Your task to perform on an android device: manage bookmarks in the chrome app Image 0: 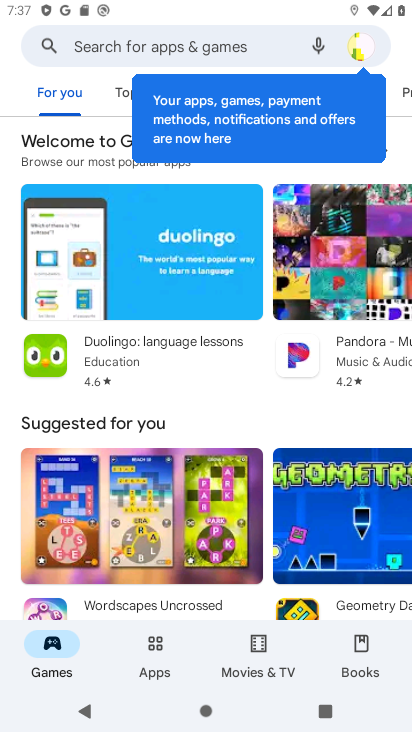
Step 0: press home button
Your task to perform on an android device: manage bookmarks in the chrome app Image 1: 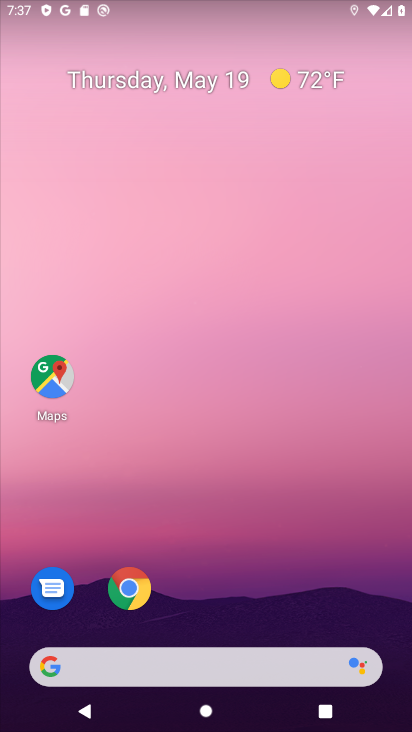
Step 1: click (124, 594)
Your task to perform on an android device: manage bookmarks in the chrome app Image 2: 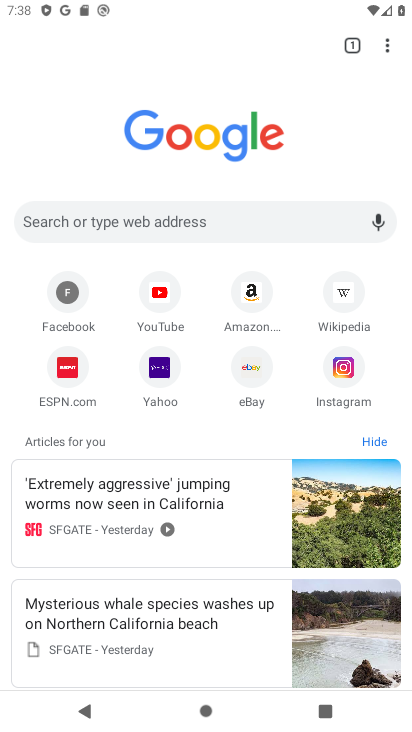
Step 2: click (391, 50)
Your task to perform on an android device: manage bookmarks in the chrome app Image 3: 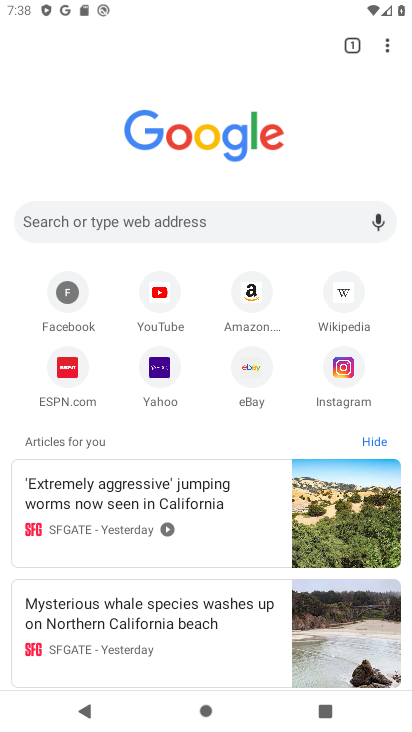
Step 3: click (385, 49)
Your task to perform on an android device: manage bookmarks in the chrome app Image 4: 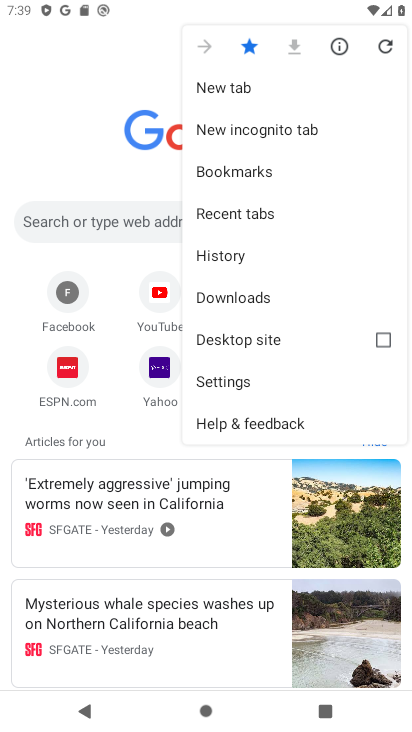
Step 4: click (235, 162)
Your task to perform on an android device: manage bookmarks in the chrome app Image 5: 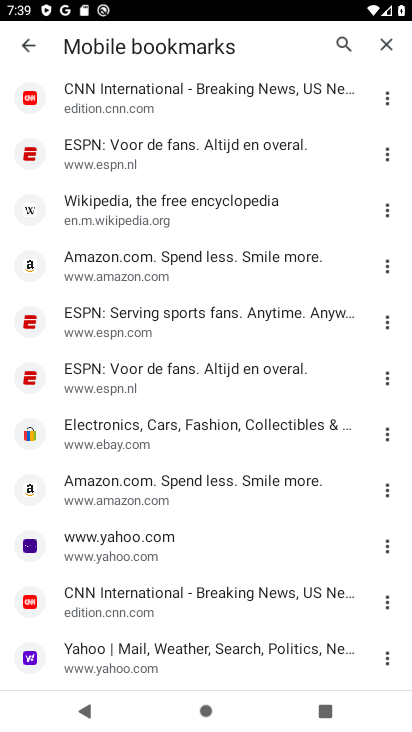
Step 5: click (149, 362)
Your task to perform on an android device: manage bookmarks in the chrome app Image 6: 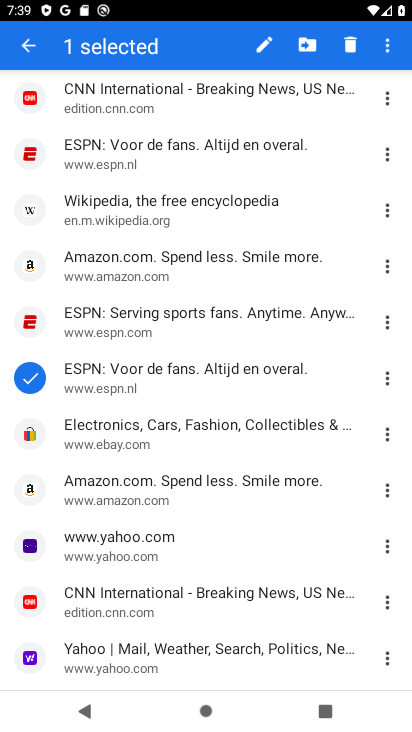
Step 6: click (41, 322)
Your task to perform on an android device: manage bookmarks in the chrome app Image 7: 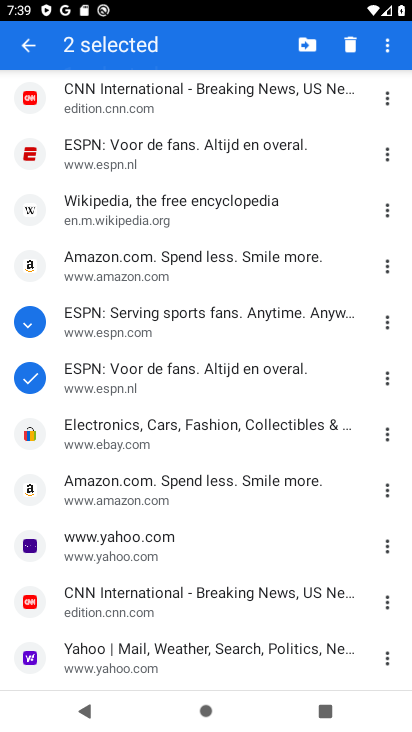
Step 7: click (43, 269)
Your task to perform on an android device: manage bookmarks in the chrome app Image 8: 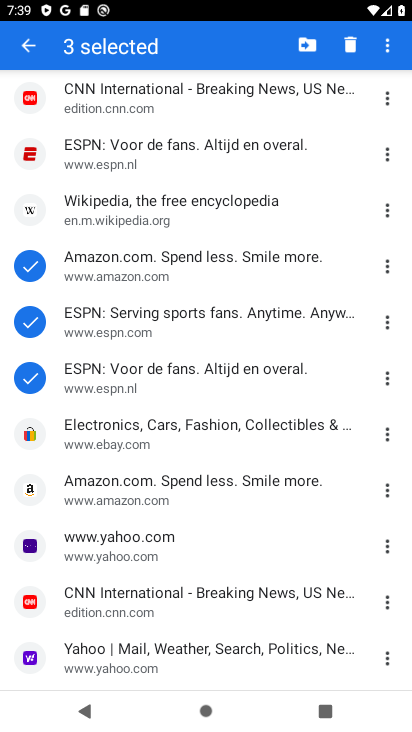
Step 8: click (357, 43)
Your task to perform on an android device: manage bookmarks in the chrome app Image 9: 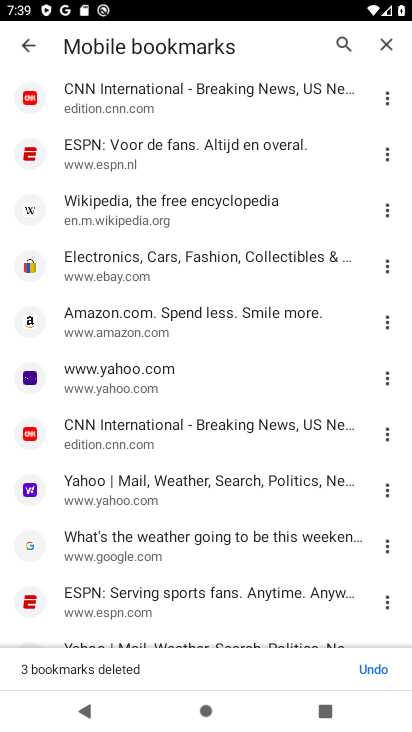
Step 9: click (33, 372)
Your task to perform on an android device: manage bookmarks in the chrome app Image 10: 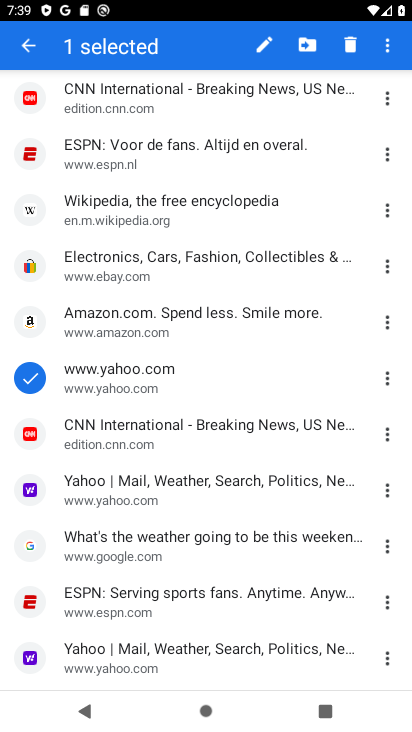
Step 10: click (31, 326)
Your task to perform on an android device: manage bookmarks in the chrome app Image 11: 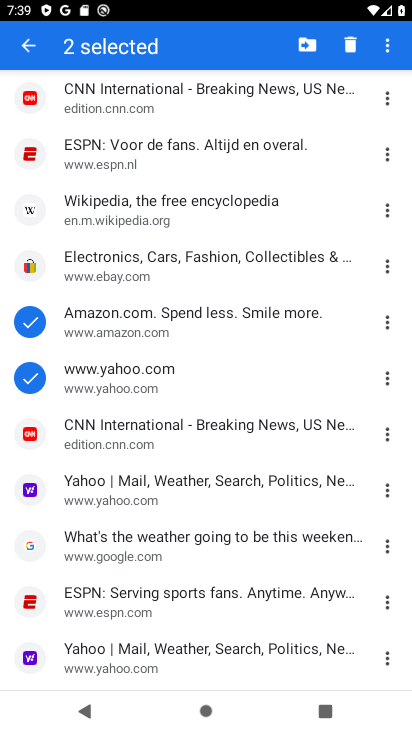
Step 11: click (323, 56)
Your task to perform on an android device: manage bookmarks in the chrome app Image 12: 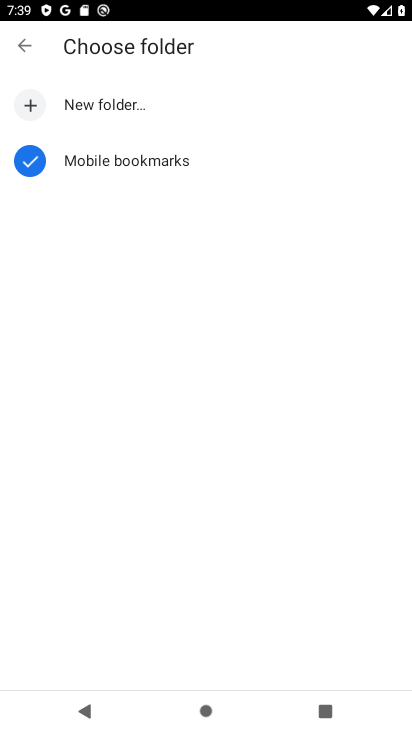
Step 12: click (118, 94)
Your task to perform on an android device: manage bookmarks in the chrome app Image 13: 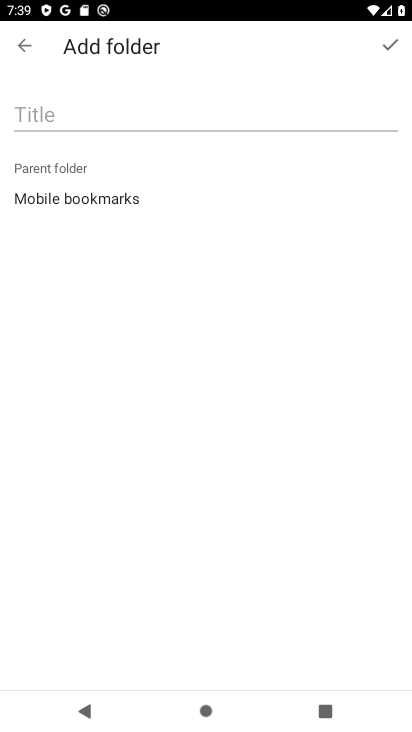
Step 13: click (174, 88)
Your task to perform on an android device: manage bookmarks in the chrome app Image 14: 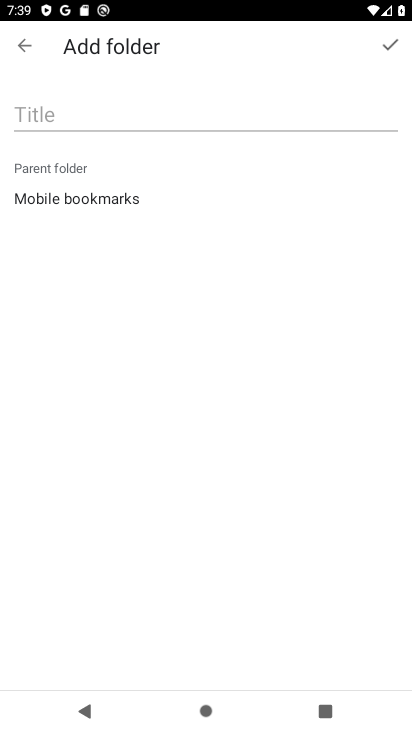
Step 14: type "fff"
Your task to perform on an android device: manage bookmarks in the chrome app Image 15: 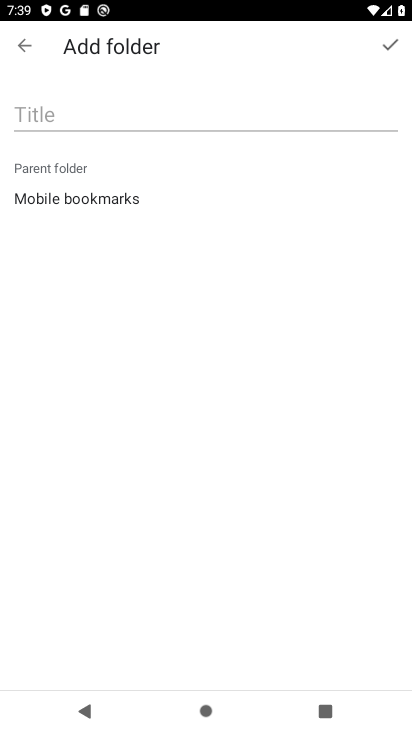
Step 15: click (386, 41)
Your task to perform on an android device: manage bookmarks in the chrome app Image 16: 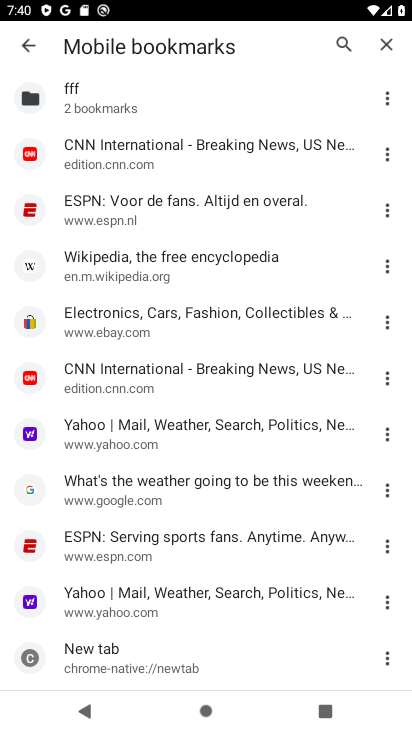
Step 16: task complete